Your task to perform on an android device: Open my contact list Image 0: 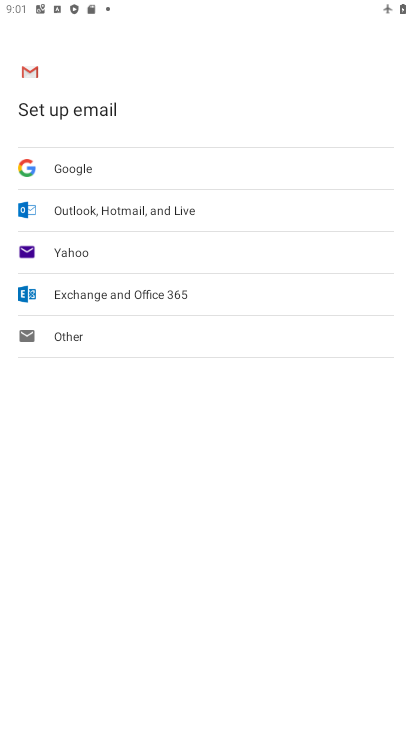
Step 0: press home button
Your task to perform on an android device: Open my contact list Image 1: 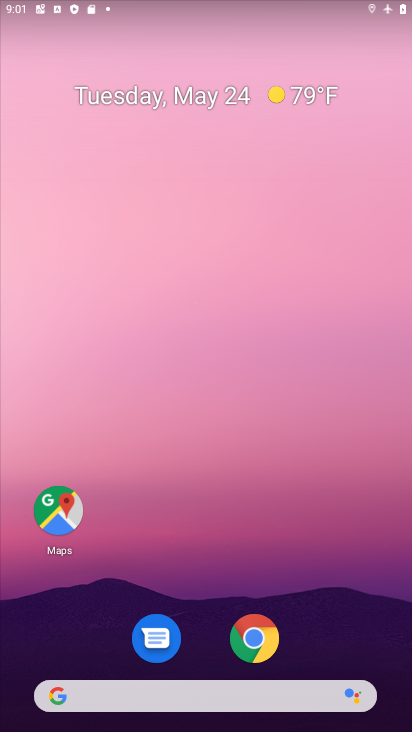
Step 1: drag from (85, 725) to (410, 139)
Your task to perform on an android device: Open my contact list Image 2: 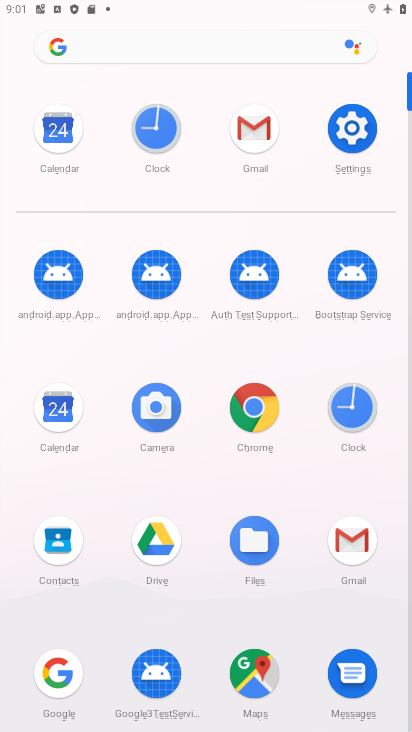
Step 2: click (60, 541)
Your task to perform on an android device: Open my contact list Image 3: 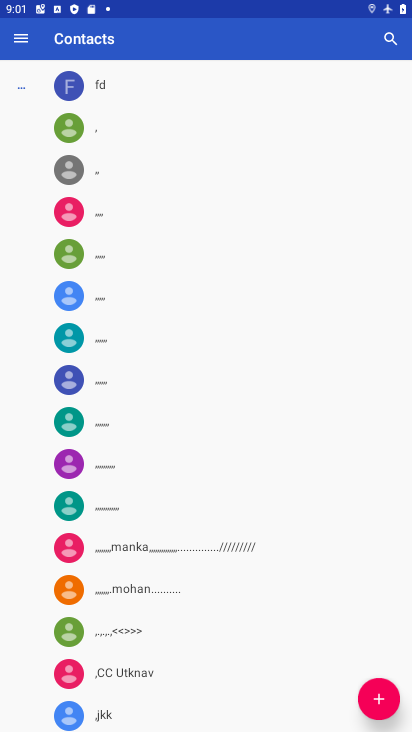
Step 3: task complete